Your task to perform on an android device: add a contact Image 0: 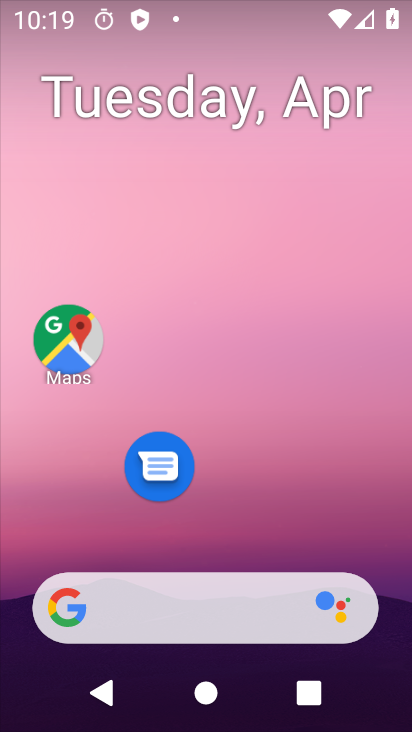
Step 0: drag from (375, 504) to (306, 69)
Your task to perform on an android device: add a contact Image 1: 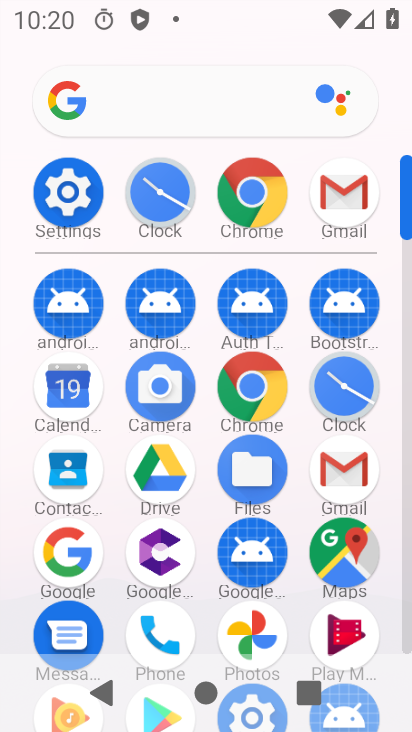
Step 1: click (56, 490)
Your task to perform on an android device: add a contact Image 2: 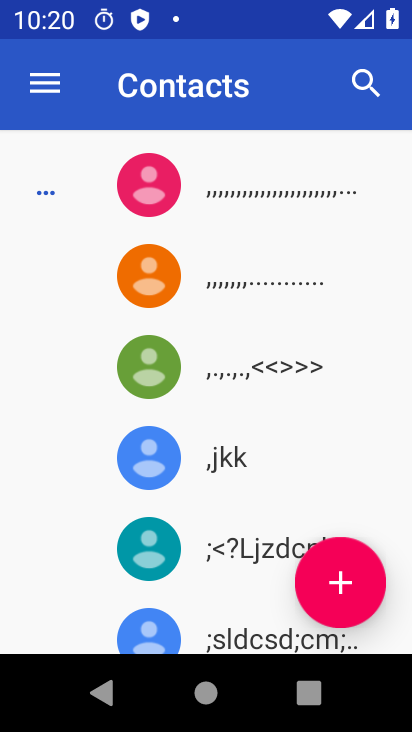
Step 2: click (368, 573)
Your task to perform on an android device: add a contact Image 3: 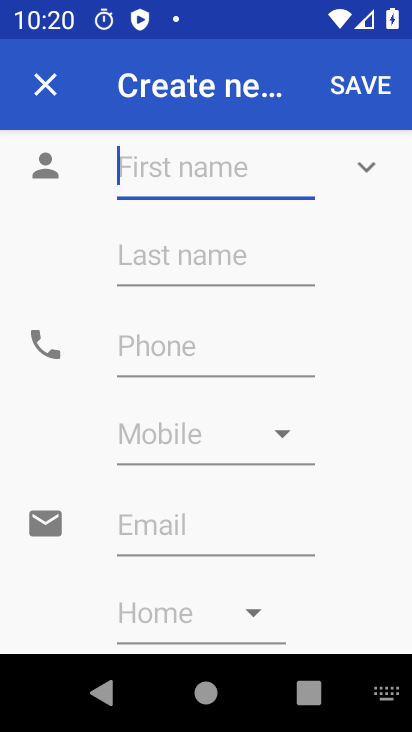
Step 3: type "dkasnckjas"
Your task to perform on an android device: add a contact Image 4: 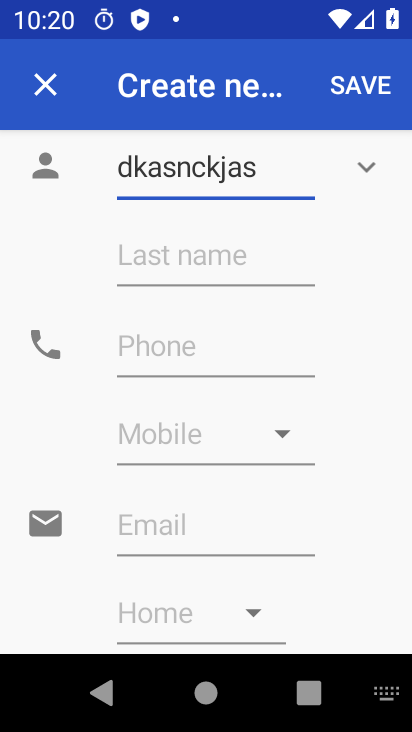
Step 4: click (239, 280)
Your task to perform on an android device: add a contact Image 5: 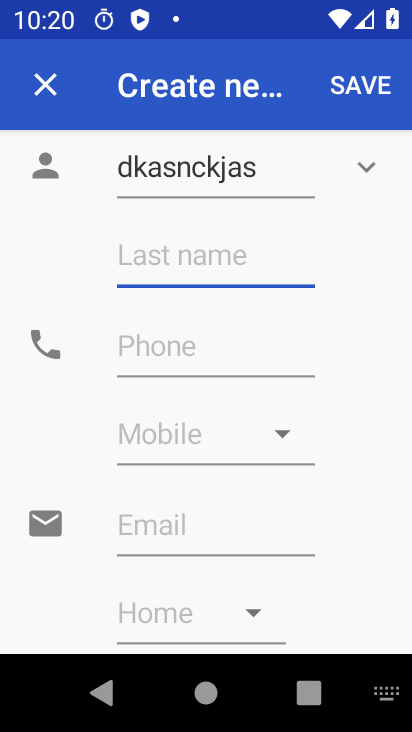
Step 5: click (241, 262)
Your task to perform on an android device: add a contact Image 6: 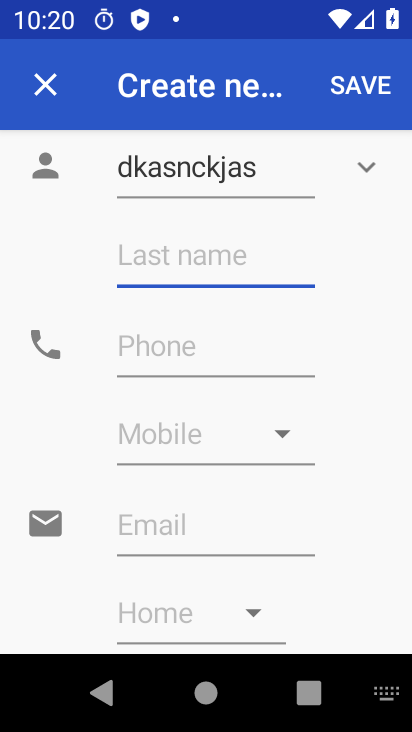
Step 6: type "cjhsdjcbjsd"
Your task to perform on an android device: add a contact Image 7: 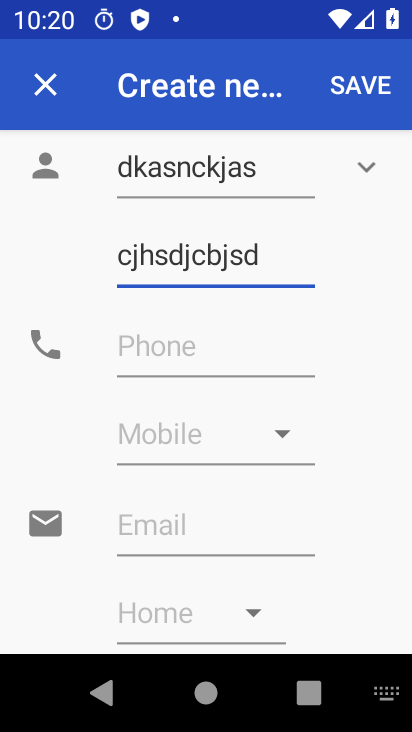
Step 7: click (253, 352)
Your task to perform on an android device: add a contact Image 8: 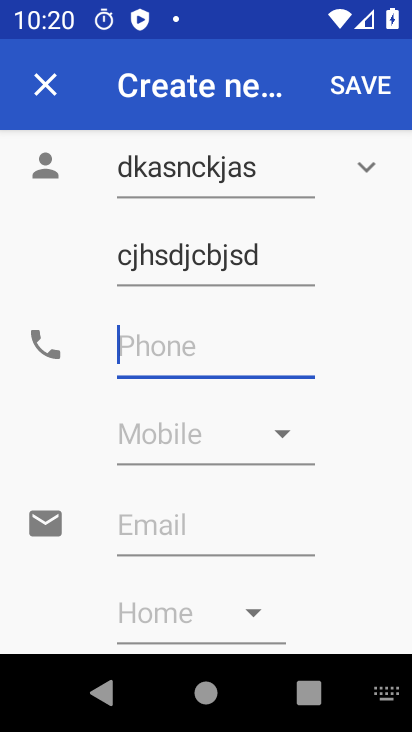
Step 8: type "423535345"
Your task to perform on an android device: add a contact Image 9: 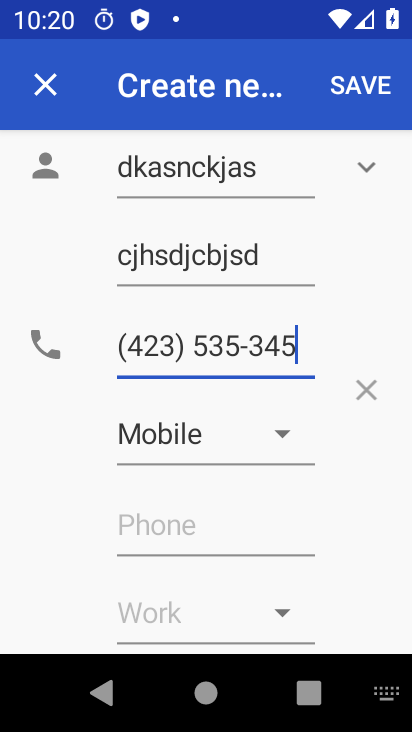
Step 9: click (362, 91)
Your task to perform on an android device: add a contact Image 10: 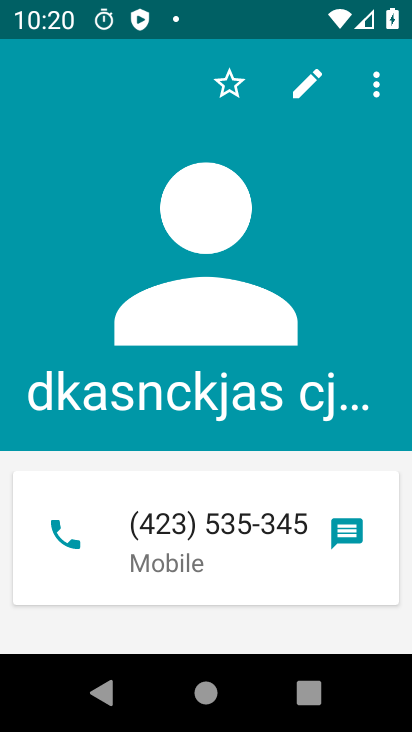
Step 10: task complete